Your task to perform on an android device: Check the news Image 0: 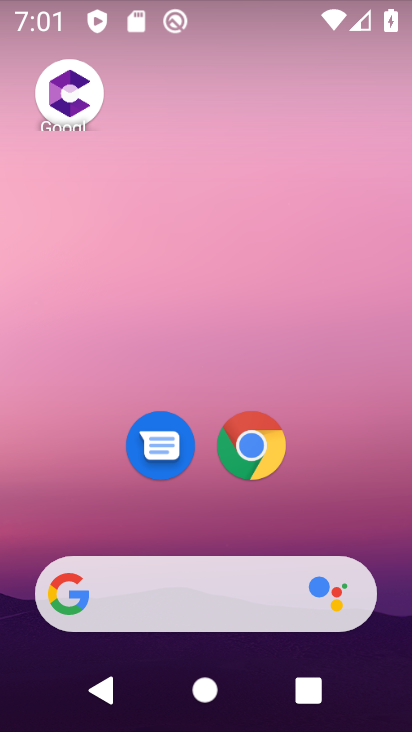
Step 0: click (265, 441)
Your task to perform on an android device: Check the news Image 1: 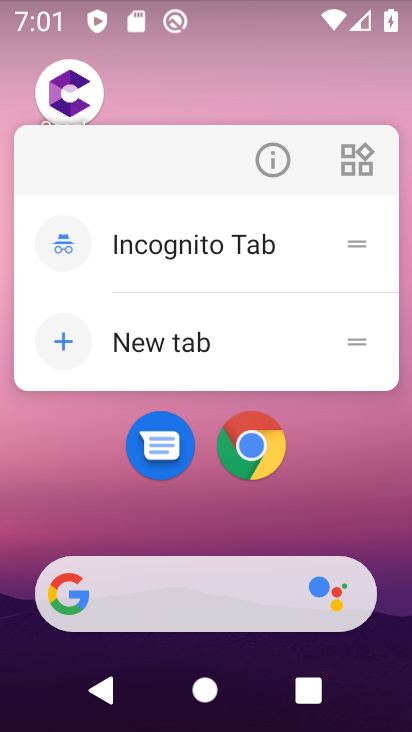
Step 1: click (277, 461)
Your task to perform on an android device: Check the news Image 2: 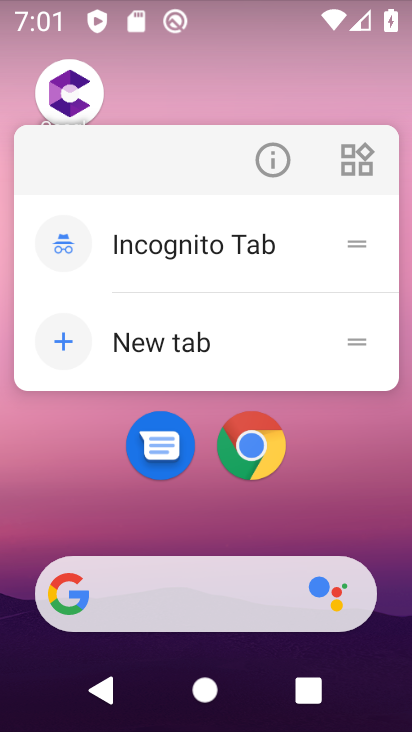
Step 2: click (118, 593)
Your task to perform on an android device: Check the news Image 3: 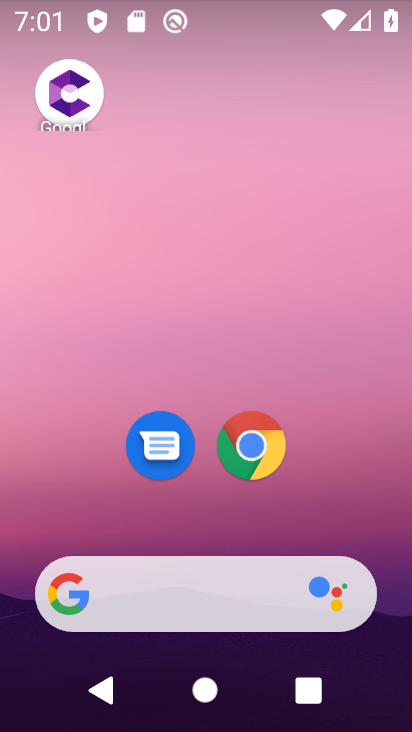
Step 3: click (165, 586)
Your task to perform on an android device: Check the news Image 4: 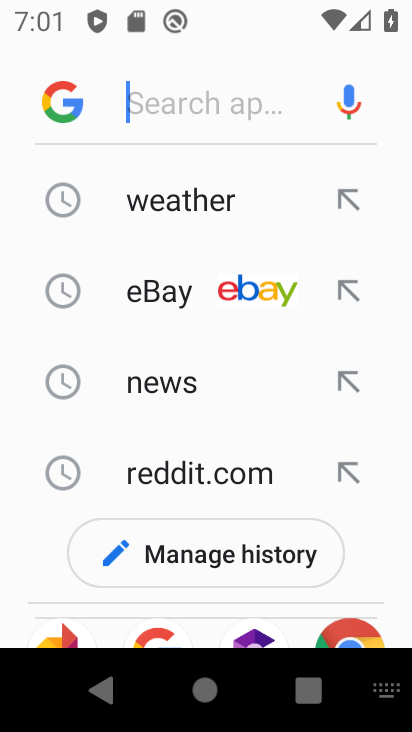
Step 4: click (163, 375)
Your task to perform on an android device: Check the news Image 5: 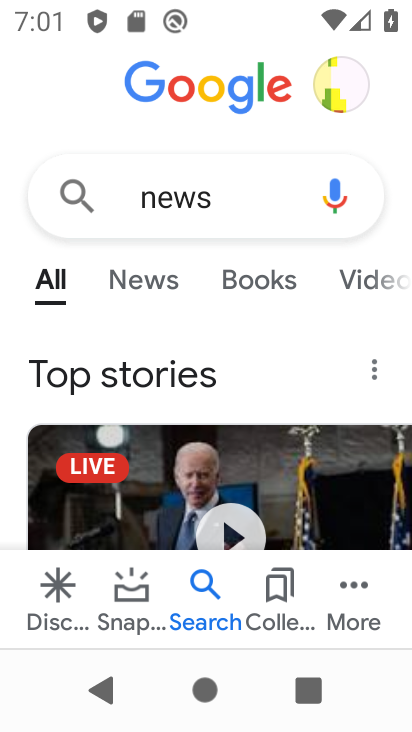
Step 5: task complete